Your task to perform on an android device: What's the weather today? Image 0: 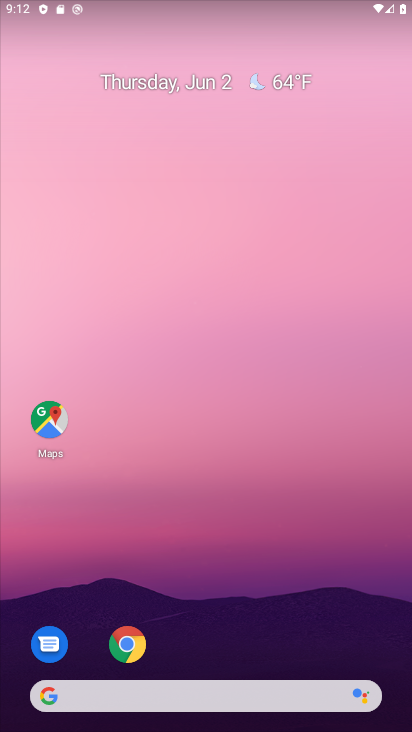
Step 0: press home button
Your task to perform on an android device: What's the weather today? Image 1: 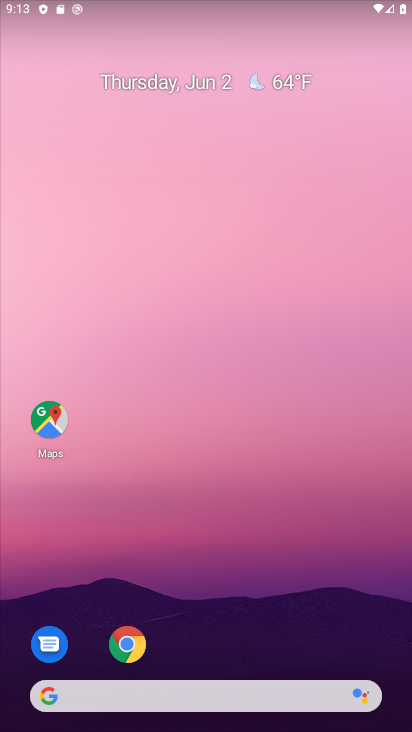
Step 1: click (122, 641)
Your task to perform on an android device: What's the weather today? Image 2: 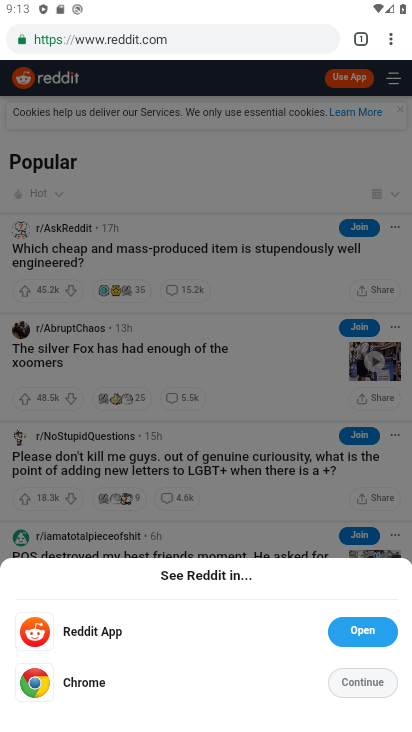
Step 2: click (200, 28)
Your task to perform on an android device: What's the weather today? Image 3: 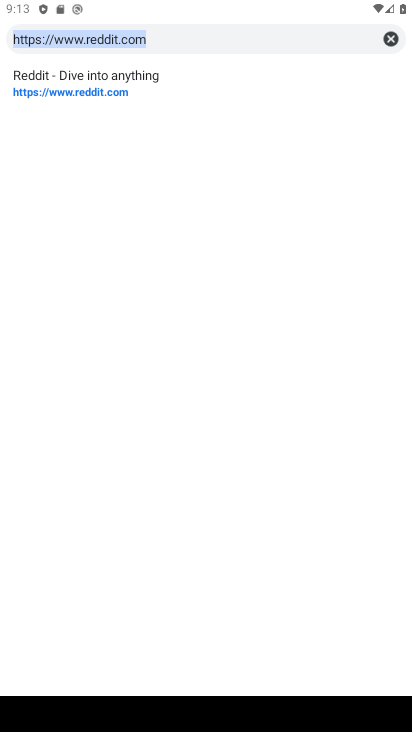
Step 3: click (390, 32)
Your task to perform on an android device: What's the weather today? Image 4: 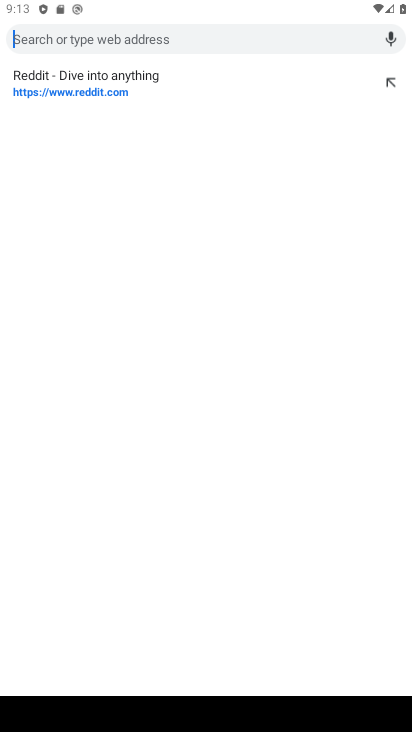
Step 4: type "What's the weather today?"
Your task to perform on an android device: What's the weather today? Image 5: 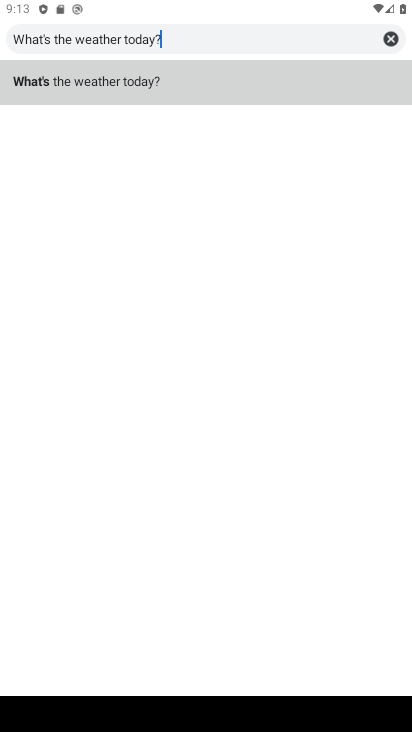
Step 5: click (226, 74)
Your task to perform on an android device: What's the weather today? Image 6: 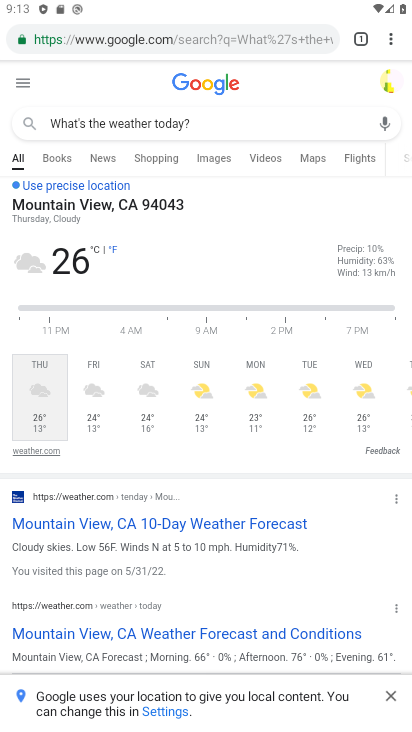
Step 6: task complete